Your task to perform on an android device: Open my contact list Image 0: 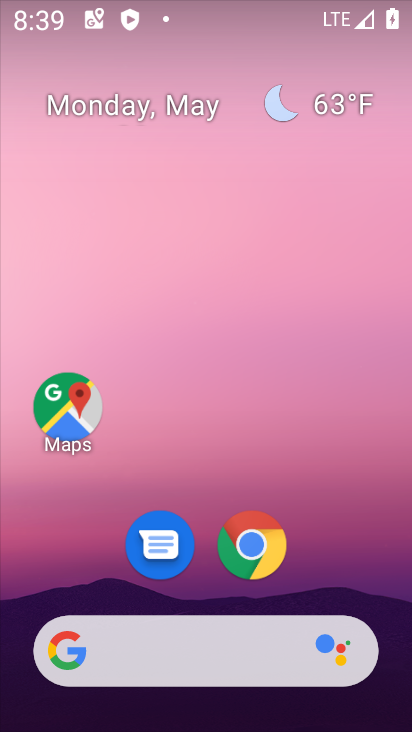
Step 0: drag from (213, 621) to (232, 148)
Your task to perform on an android device: Open my contact list Image 1: 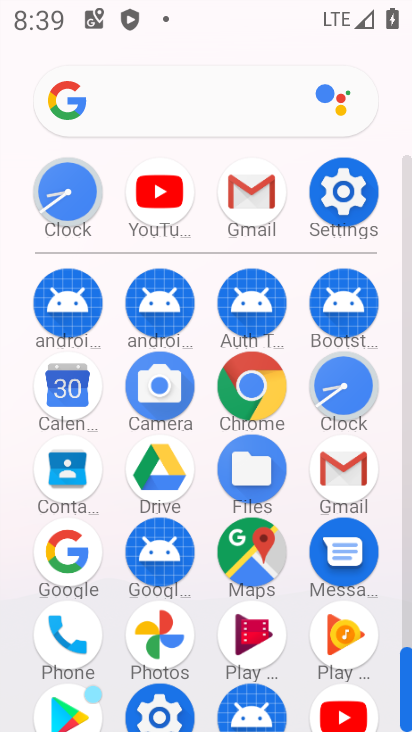
Step 1: click (76, 479)
Your task to perform on an android device: Open my contact list Image 2: 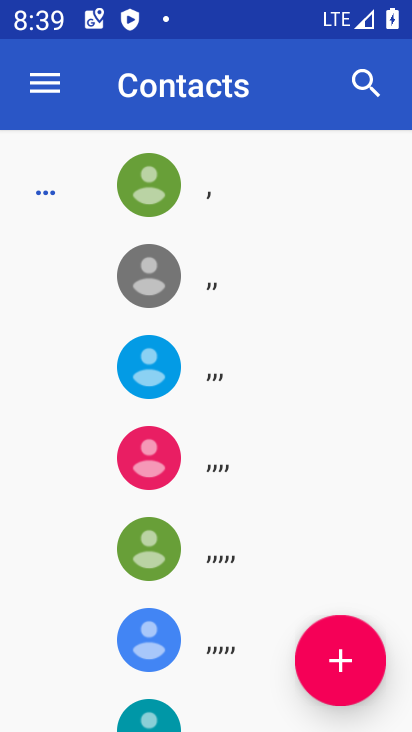
Step 2: task complete